Your task to perform on an android device: Open eBay Image 0: 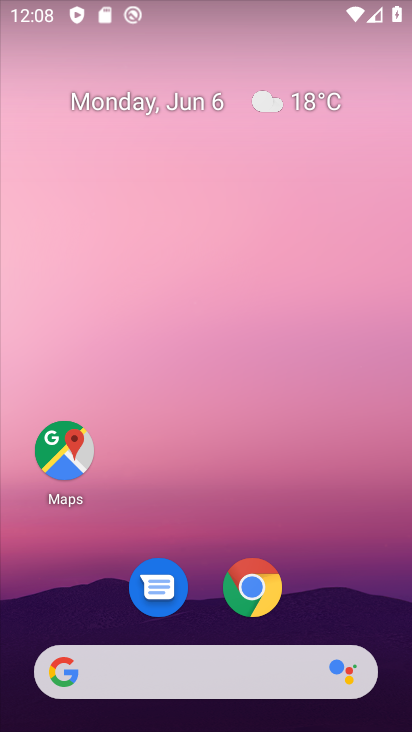
Step 0: drag from (328, 599) to (330, 127)
Your task to perform on an android device: Open eBay Image 1: 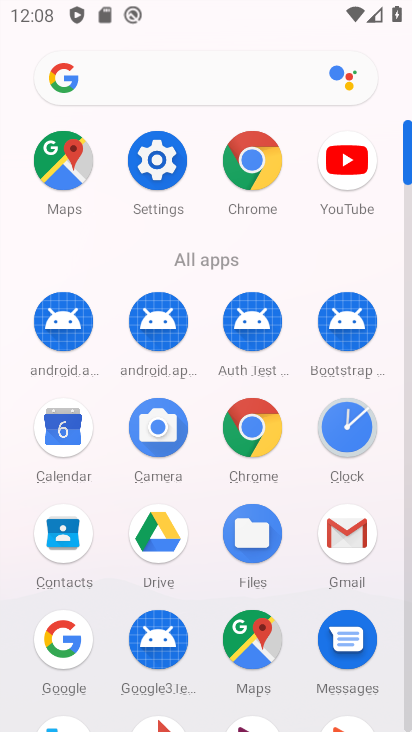
Step 1: click (263, 425)
Your task to perform on an android device: Open eBay Image 2: 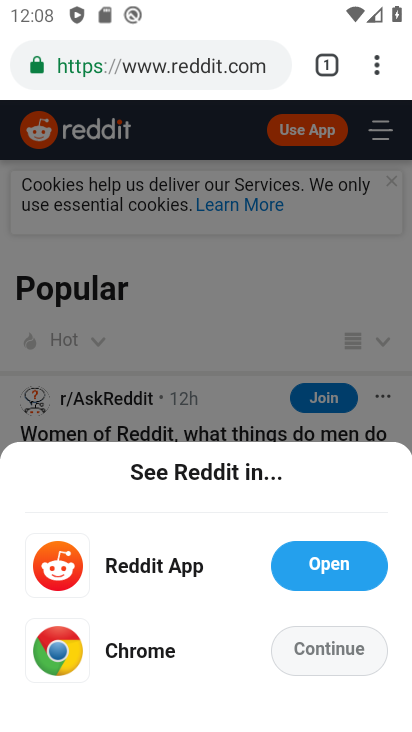
Step 2: click (209, 62)
Your task to perform on an android device: Open eBay Image 3: 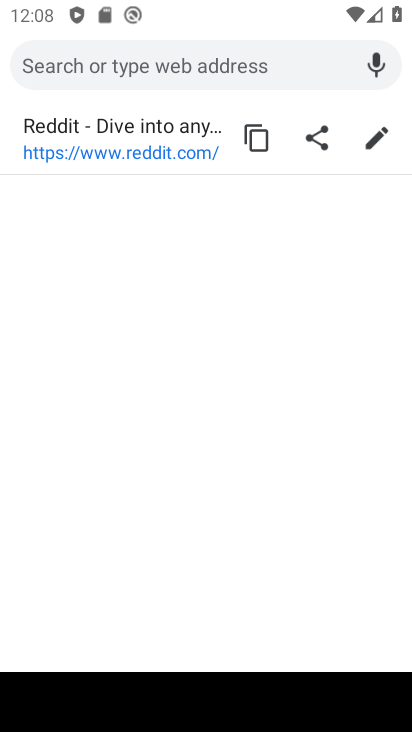
Step 3: type "ebay"
Your task to perform on an android device: Open eBay Image 4: 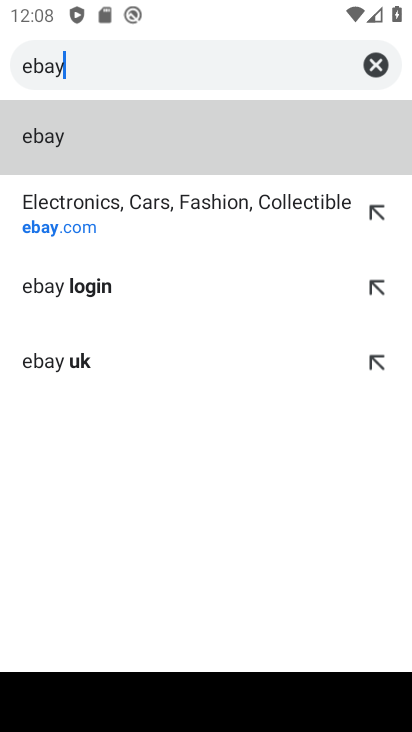
Step 4: click (72, 201)
Your task to perform on an android device: Open eBay Image 5: 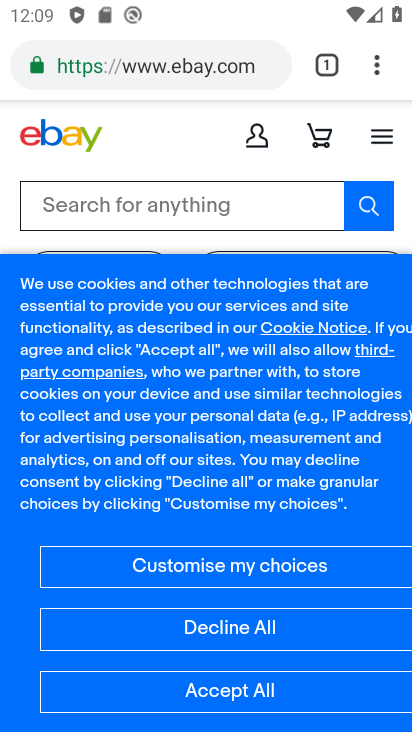
Step 5: task complete